Your task to perform on an android device: Go to location settings Image 0: 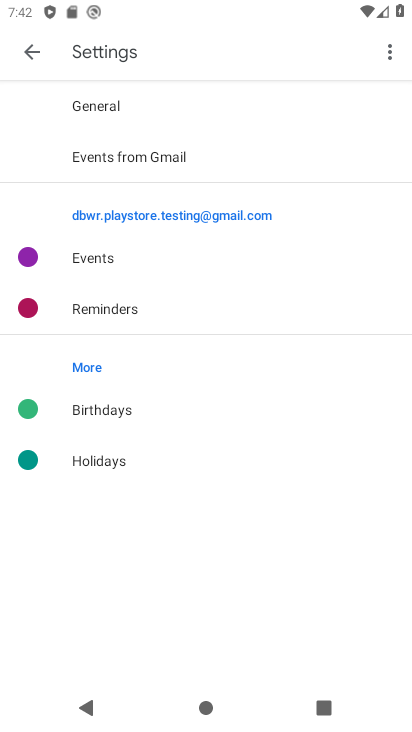
Step 0: press home button
Your task to perform on an android device: Go to location settings Image 1: 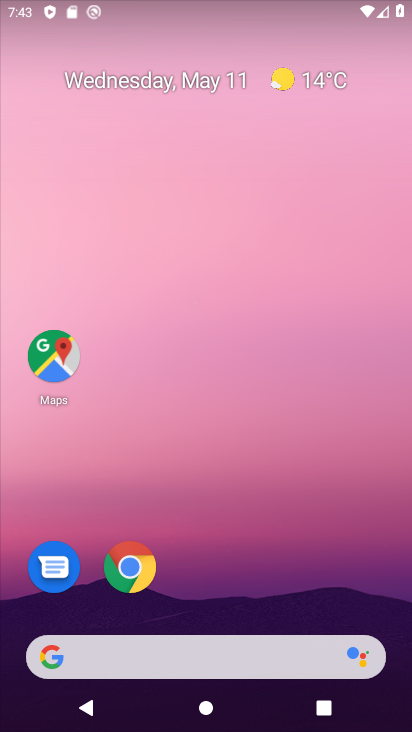
Step 1: drag from (192, 584) to (210, 248)
Your task to perform on an android device: Go to location settings Image 2: 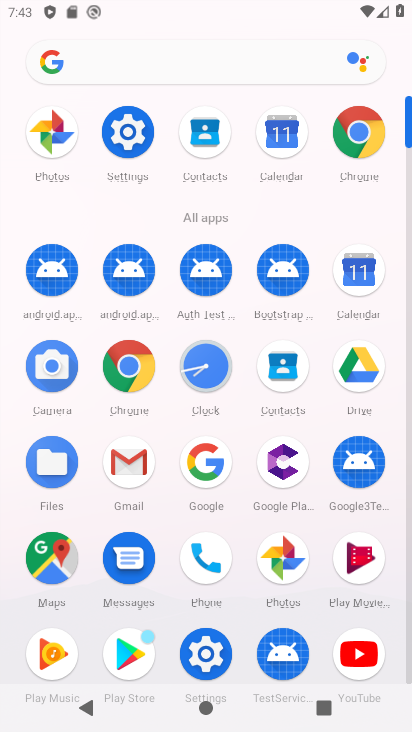
Step 2: click (211, 650)
Your task to perform on an android device: Go to location settings Image 3: 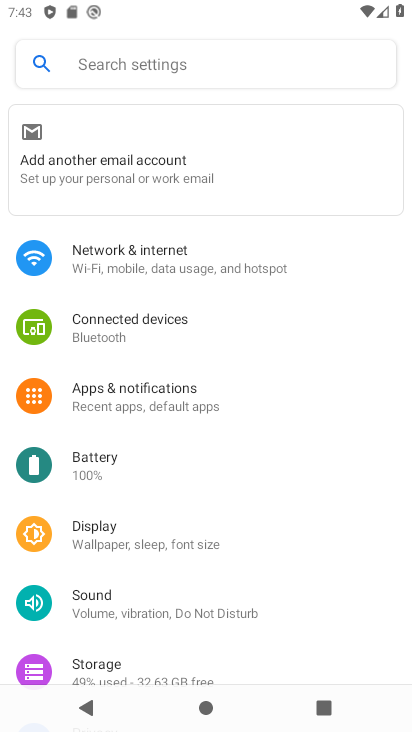
Step 3: drag from (193, 637) to (201, 426)
Your task to perform on an android device: Go to location settings Image 4: 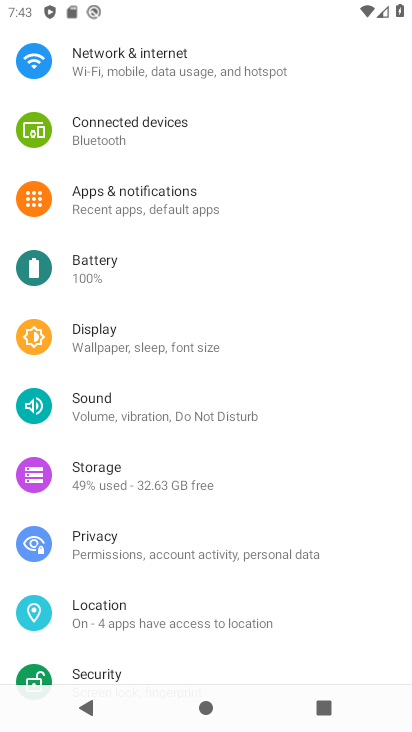
Step 4: drag from (184, 567) to (203, 352)
Your task to perform on an android device: Go to location settings Image 5: 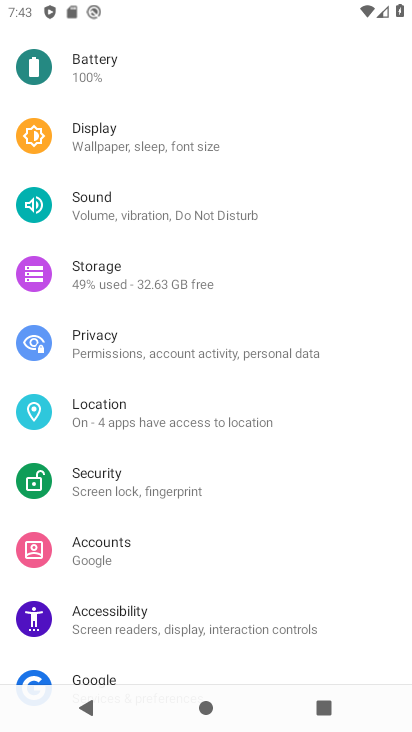
Step 5: click (183, 408)
Your task to perform on an android device: Go to location settings Image 6: 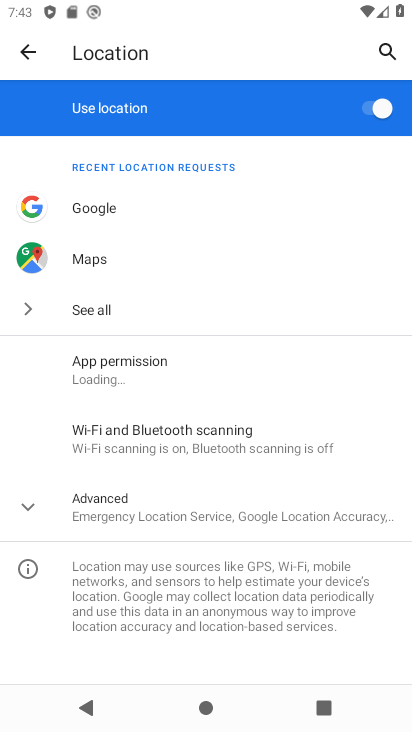
Step 6: task complete